Your task to perform on an android device: What's on my calendar tomorrow? Image 0: 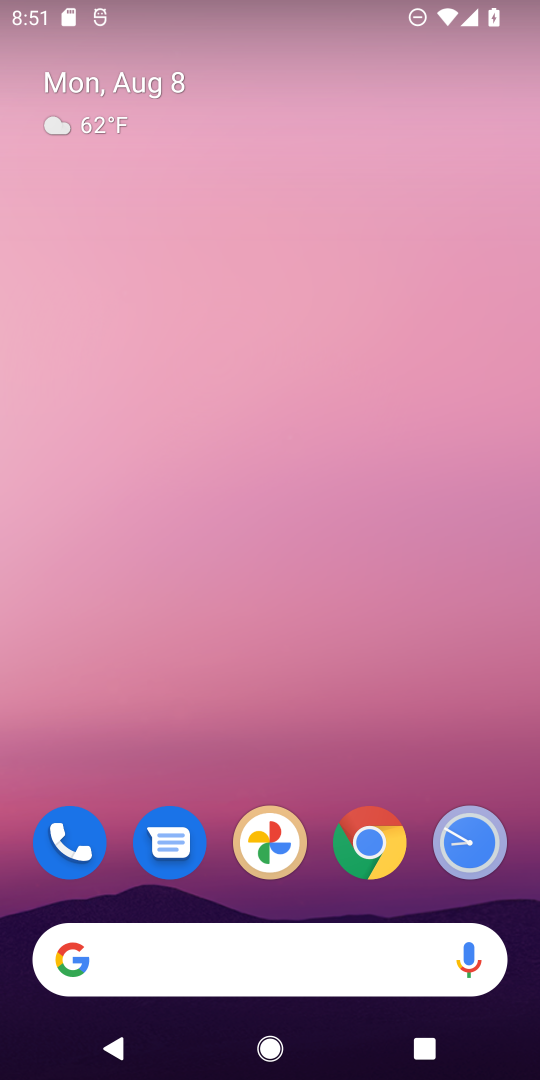
Step 0: drag from (341, 736) to (344, 0)
Your task to perform on an android device: What's on my calendar tomorrow? Image 1: 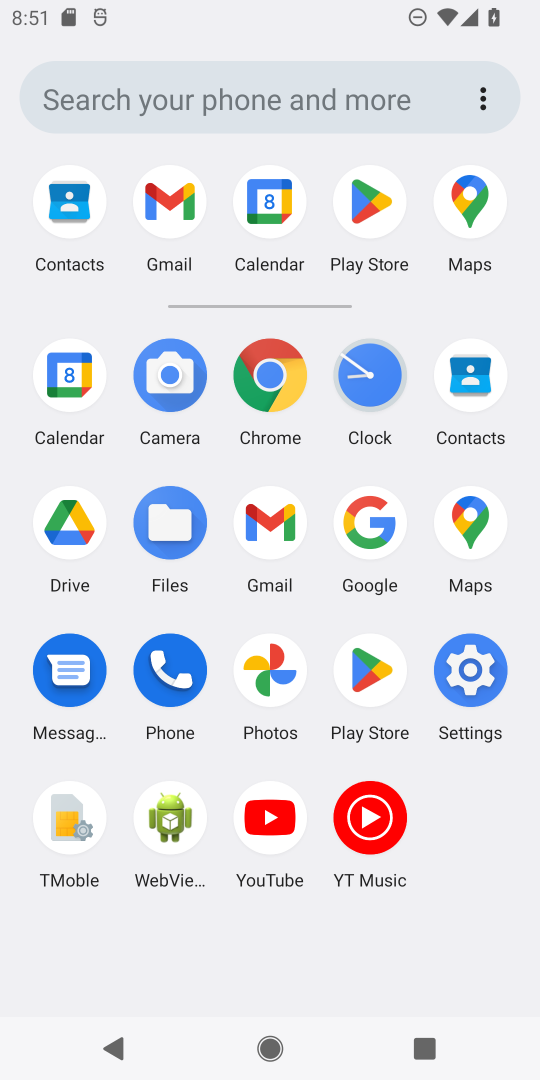
Step 1: click (267, 201)
Your task to perform on an android device: What's on my calendar tomorrow? Image 2: 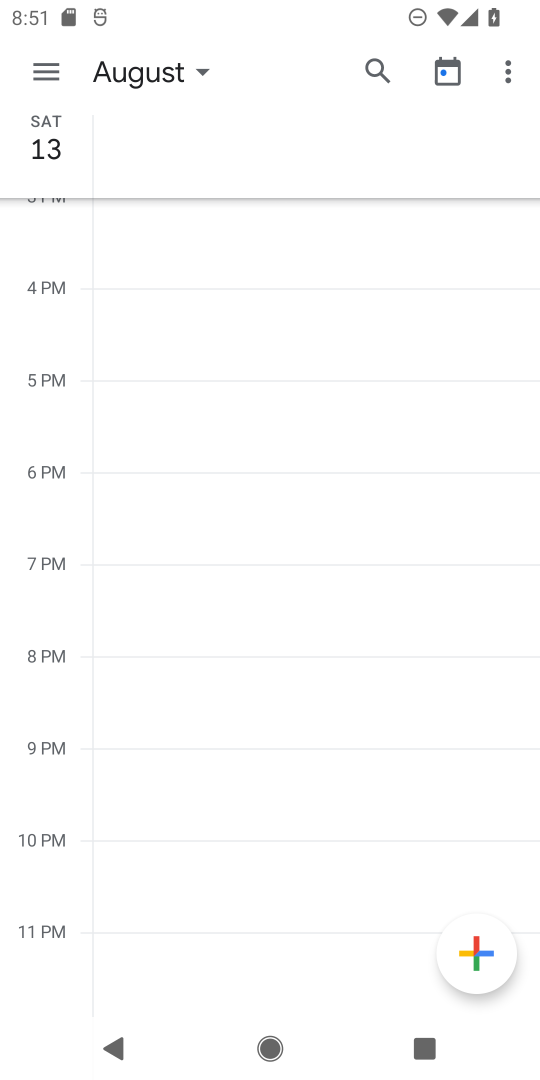
Step 2: drag from (241, 338) to (314, 884)
Your task to perform on an android device: What's on my calendar tomorrow? Image 3: 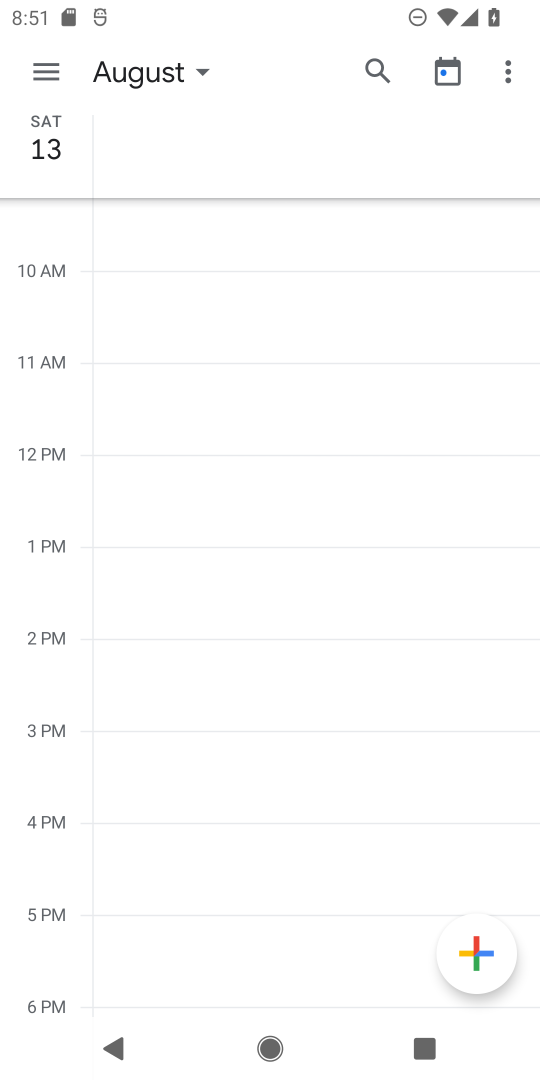
Step 3: click (49, 70)
Your task to perform on an android device: What's on my calendar tomorrow? Image 4: 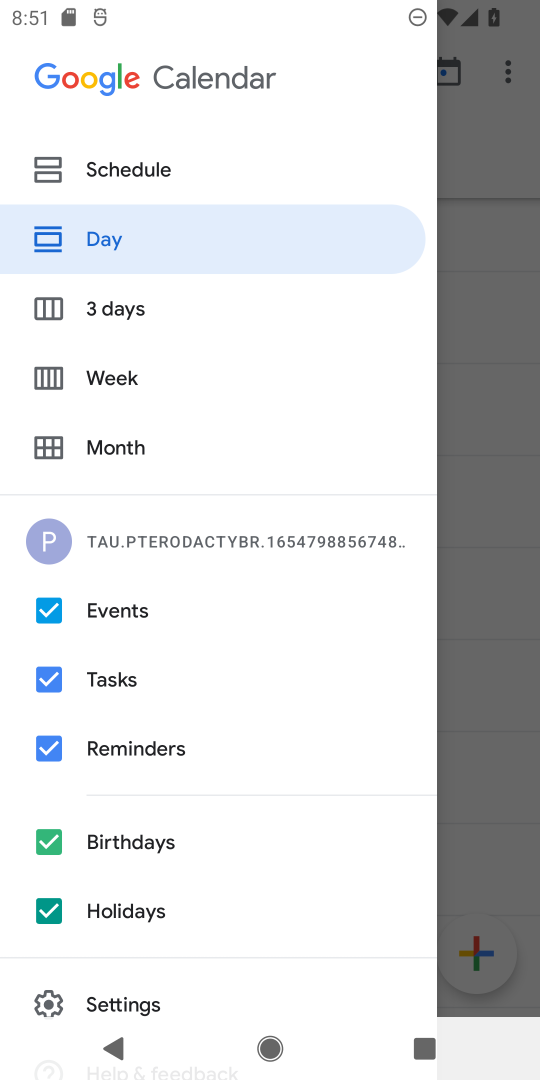
Step 4: click (45, 447)
Your task to perform on an android device: What's on my calendar tomorrow? Image 5: 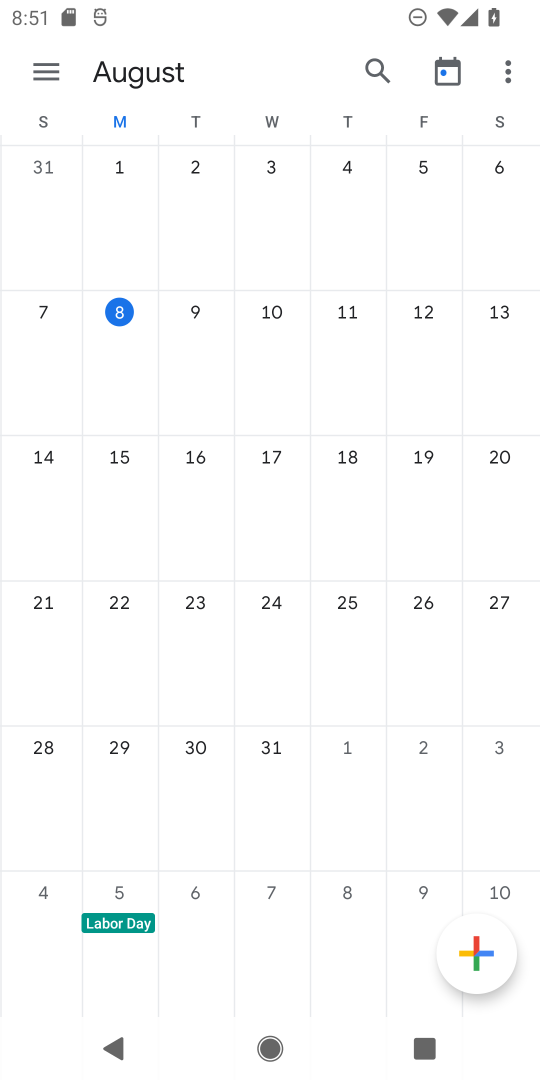
Step 5: click (189, 300)
Your task to perform on an android device: What's on my calendar tomorrow? Image 6: 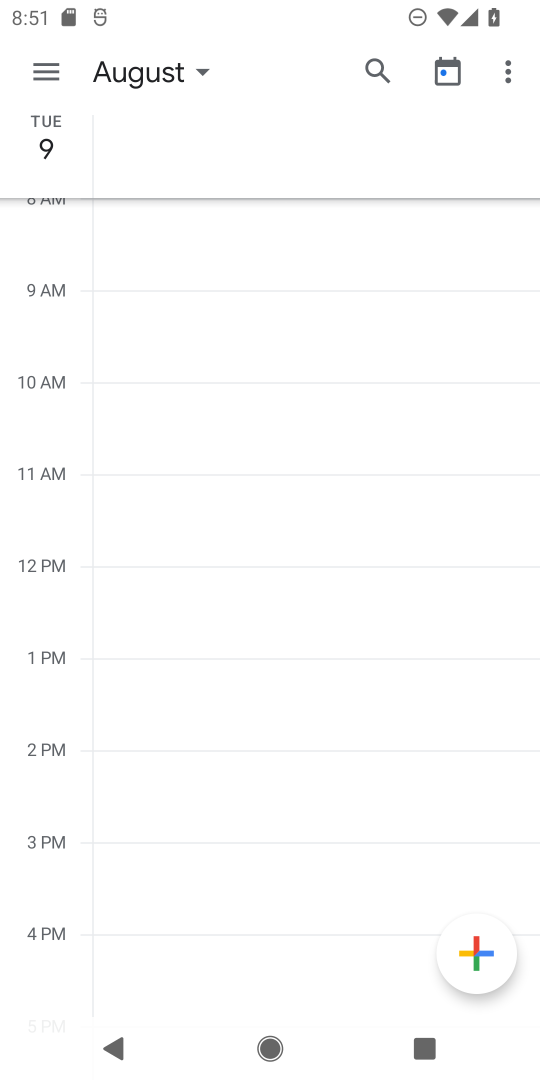
Step 6: task complete